Your task to perform on an android device: turn off wifi Image 0: 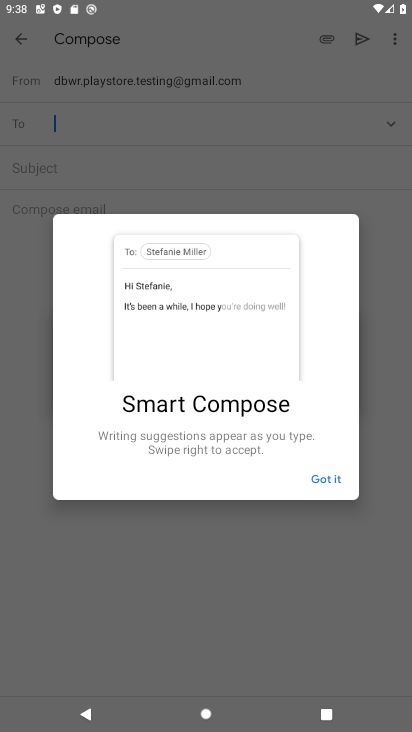
Step 0: task complete